Your task to perform on an android device: Open the stopwatch Image 0: 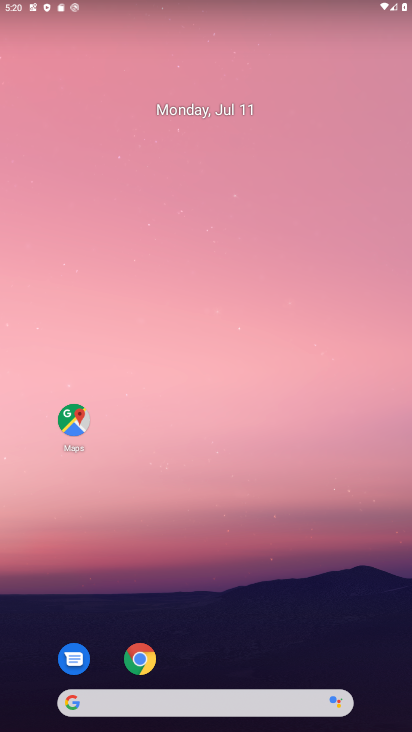
Step 0: drag from (358, 637) to (315, 21)
Your task to perform on an android device: Open the stopwatch Image 1: 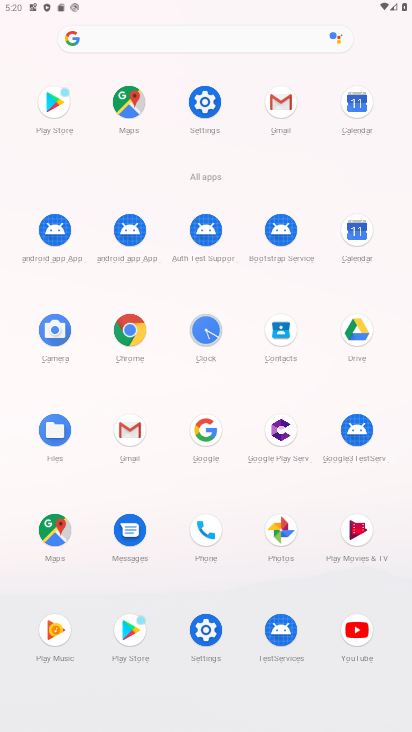
Step 1: click (205, 331)
Your task to perform on an android device: Open the stopwatch Image 2: 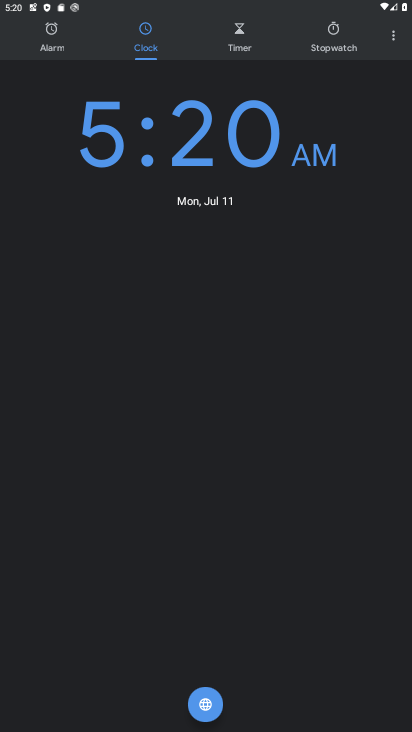
Step 2: click (325, 37)
Your task to perform on an android device: Open the stopwatch Image 3: 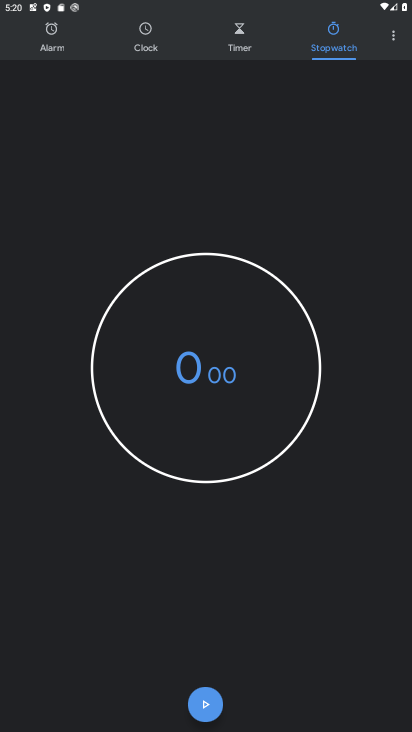
Step 3: task complete